Your task to perform on an android device: Go to Google maps Image 0: 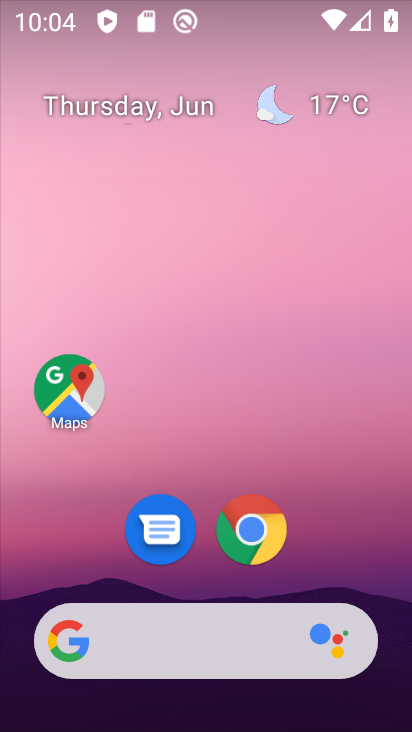
Step 0: drag from (318, 570) to (375, 1)
Your task to perform on an android device: Go to Google maps Image 1: 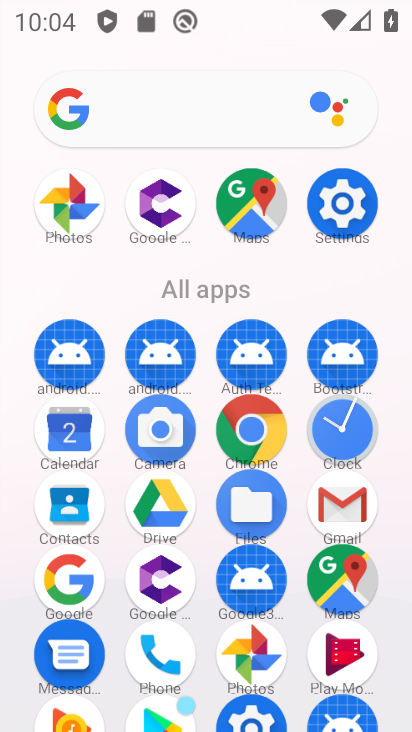
Step 1: click (241, 213)
Your task to perform on an android device: Go to Google maps Image 2: 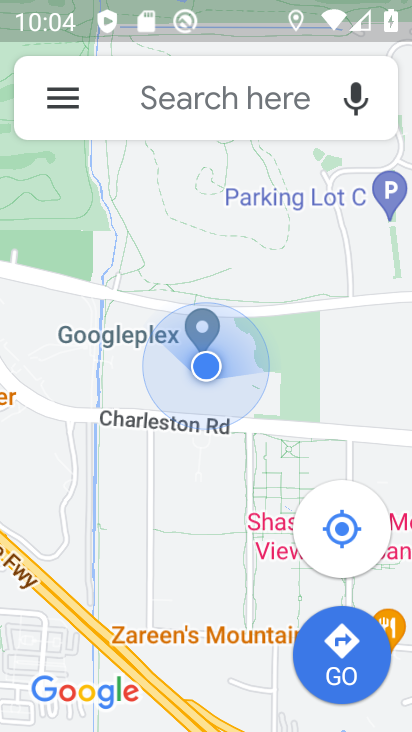
Step 2: task complete